Your task to perform on an android device: Do I have any events tomorrow? Image 0: 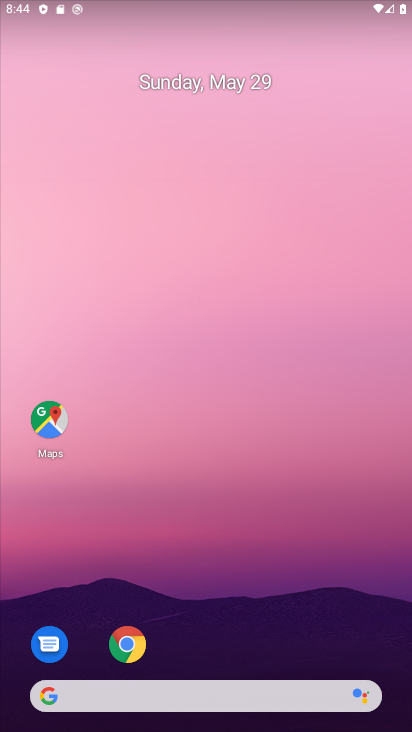
Step 0: drag from (112, 727) to (115, 61)
Your task to perform on an android device: Do I have any events tomorrow? Image 1: 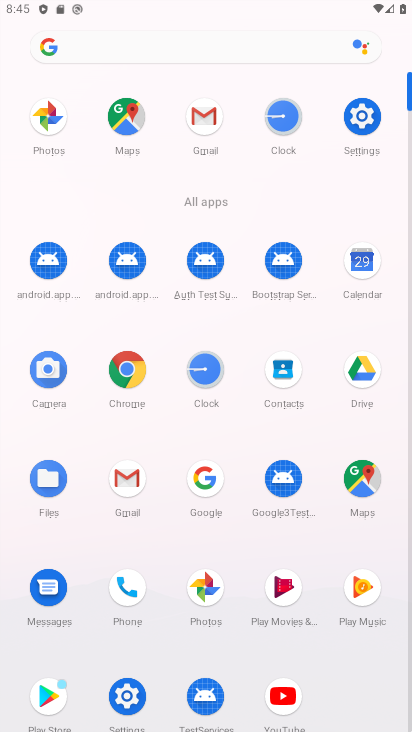
Step 1: click (360, 262)
Your task to perform on an android device: Do I have any events tomorrow? Image 2: 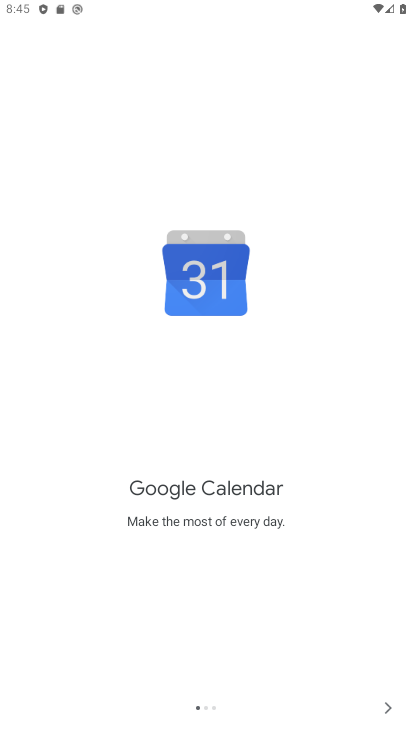
Step 2: click (385, 702)
Your task to perform on an android device: Do I have any events tomorrow? Image 3: 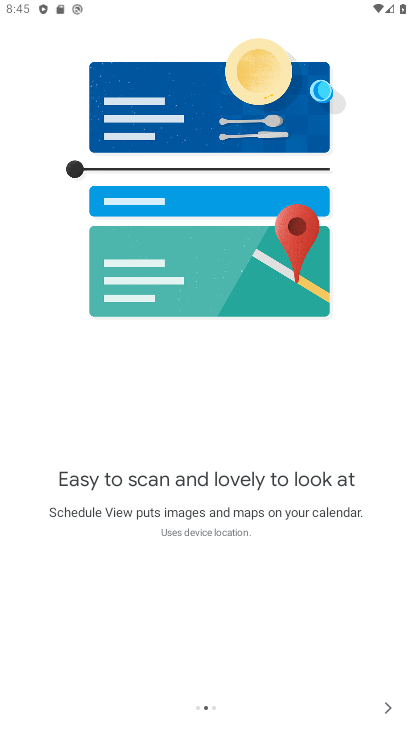
Step 3: click (385, 704)
Your task to perform on an android device: Do I have any events tomorrow? Image 4: 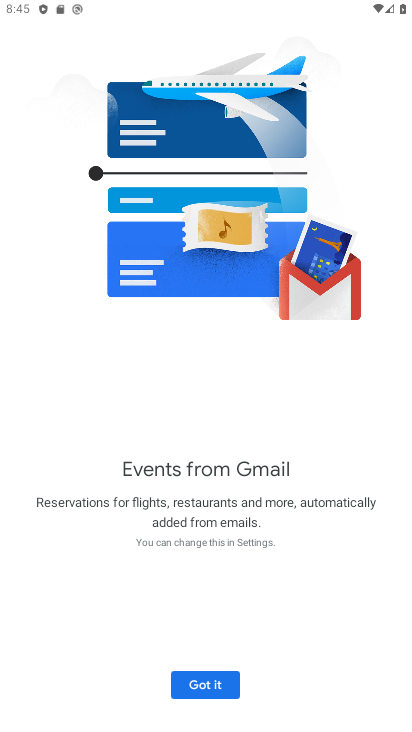
Step 4: click (215, 692)
Your task to perform on an android device: Do I have any events tomorrow? Image 5: 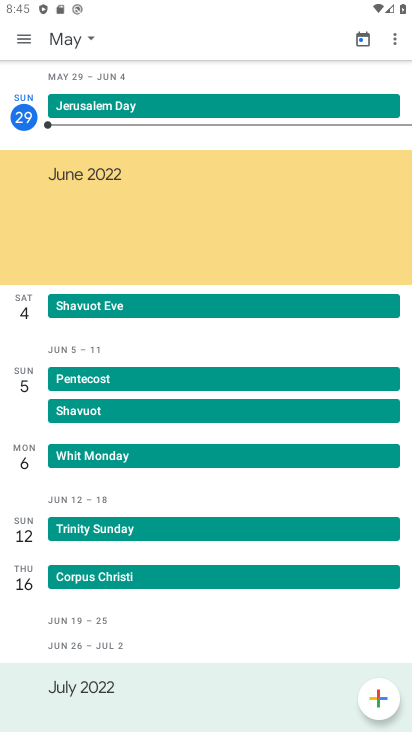
Step 5: click (88, 37)
Your task to perform on an android device: Do I have any events tomorrow? Image 6: 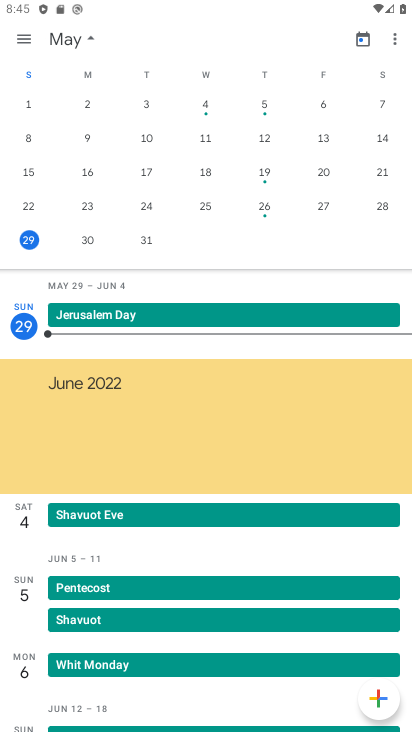
Step 6: click (87, 237)
Your task to perform on an android device: Do I have any events tomorrow? Image 7: 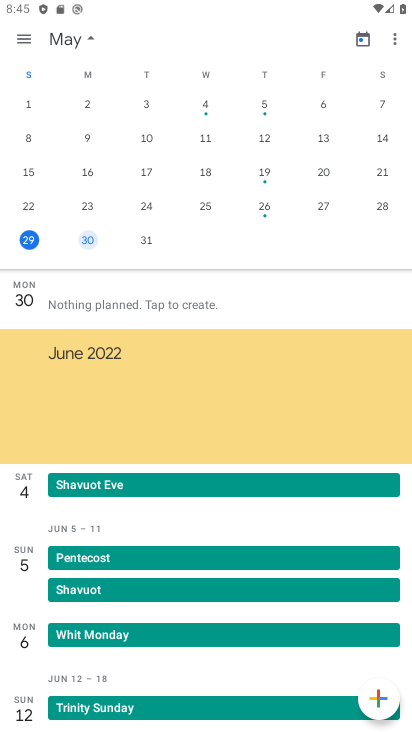
Step 7: click (115, 307)
Your task to perform on an android device: Do I have any events tomorrow? Image 8: 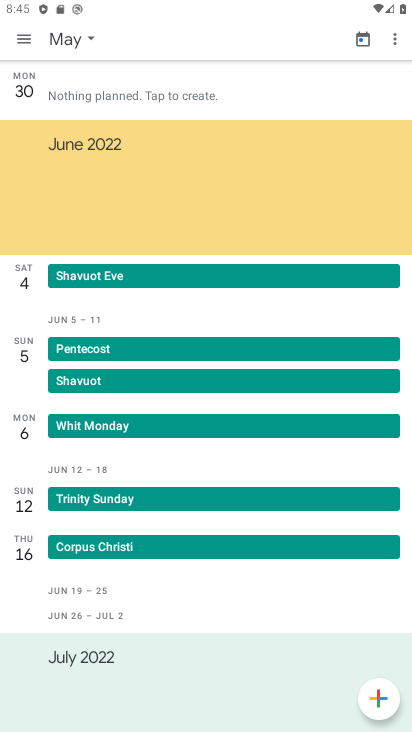
Step 8: click (16, 38)
Your task to perform on an android device: Do I have any events tomorrow? Image 9: 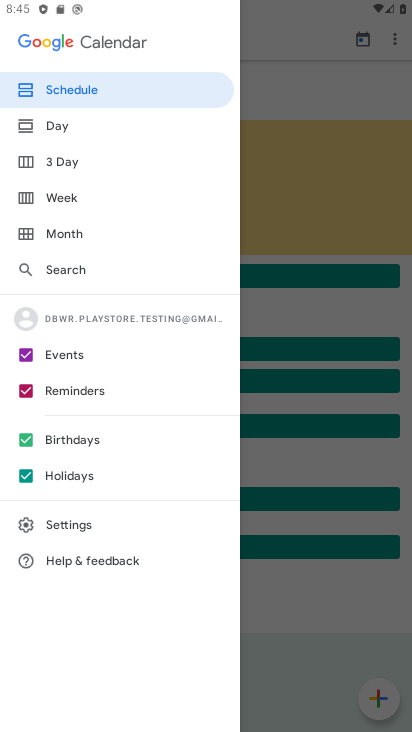
Step 9: click (55, 134)
Your task to perform on an android device: Do I have any events tomorrow? Image 10: 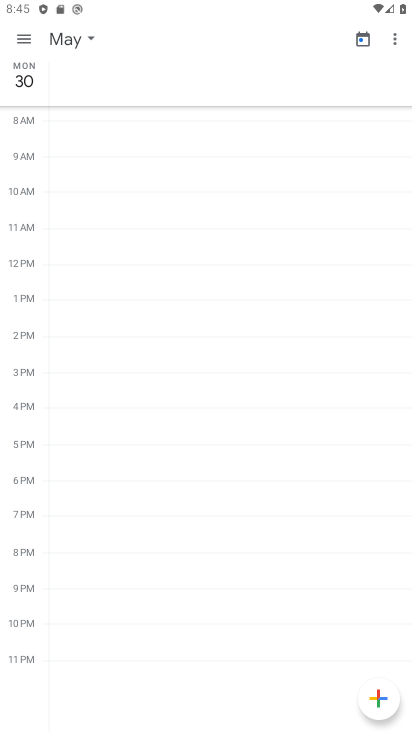
Step 10: task complete